Your task to perform on an android device: Go to eBay Image 0: 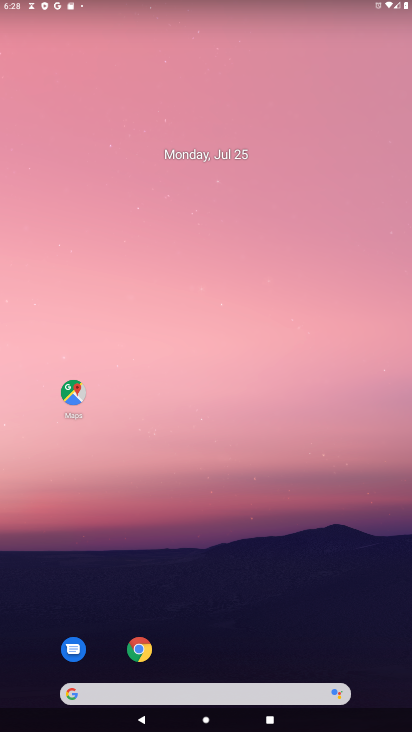
Step 0: drag from (248, 683) to (283, 156)
Your task to perform on an android device: Go to eBay Image 1: 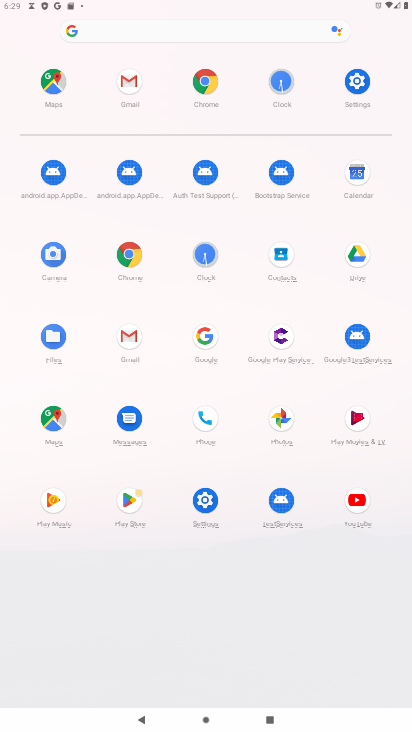
Step 1: click (136, 256)
Your task to perform on an android device: Go to eBay Image 2: 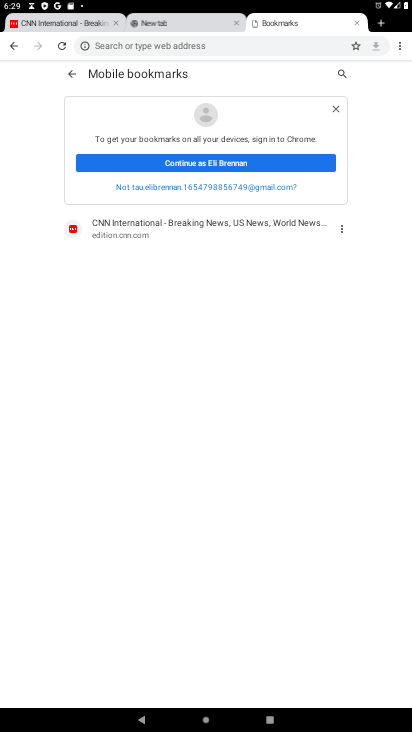
Step 2: click (205, 49)
Your task to perform on an android device: Go to eBay Image 3: 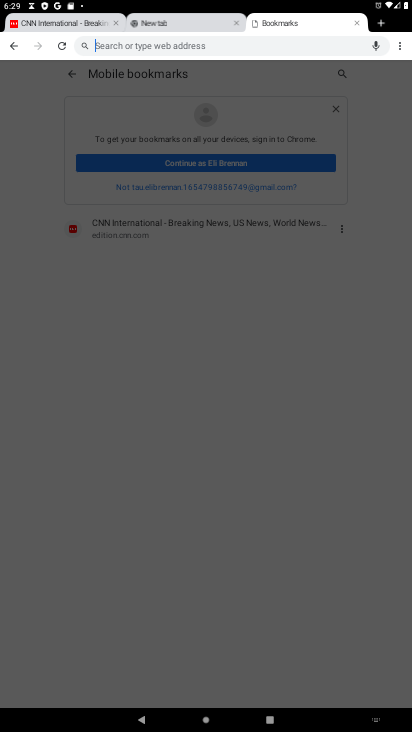
Step 3: type "ebay"
Your task to perform on an android device: Go to eBay Image 4: 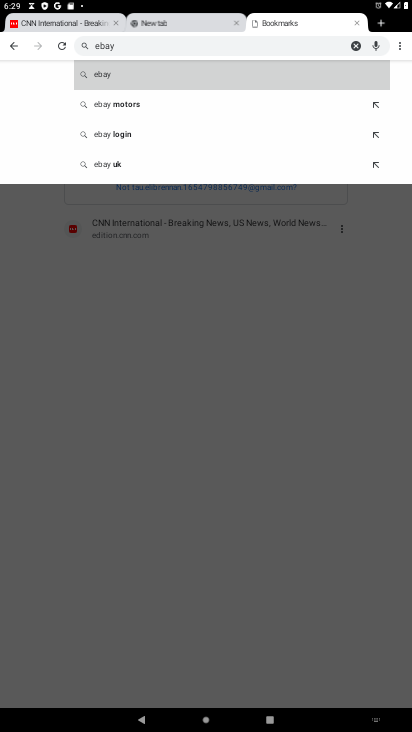
Step 4: click (101, 76)
Your task to perform on an android device: Go to eBay Image 5: 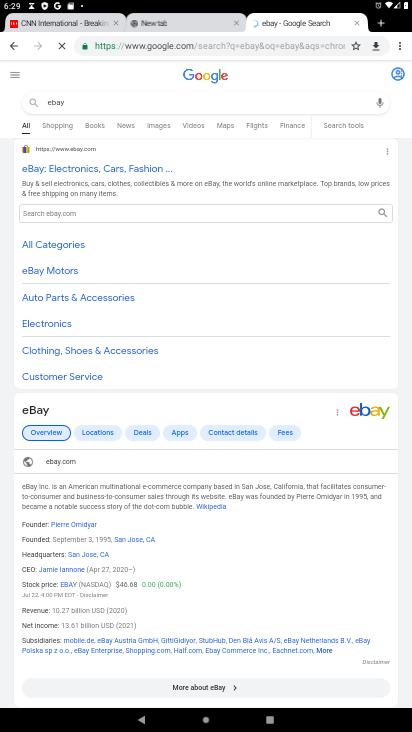
Step 5: task complete